Your task to perform on an android device: turn off picture-in-picture Image 0: 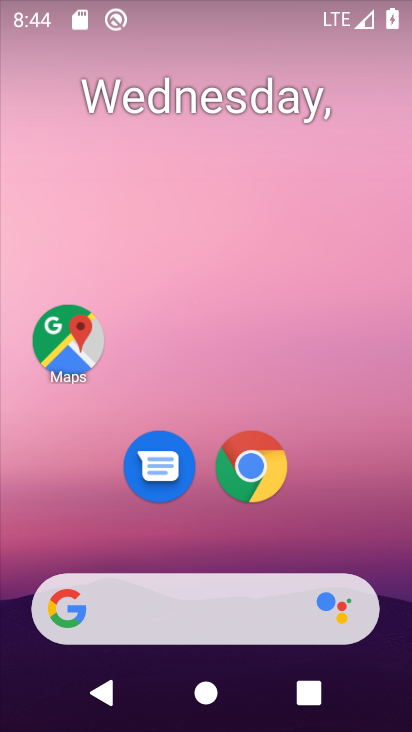
Step 0: drag from (235, 720) to (235, 276)
Your task to perform on an android device: turn off picture-in-picture Image 1: 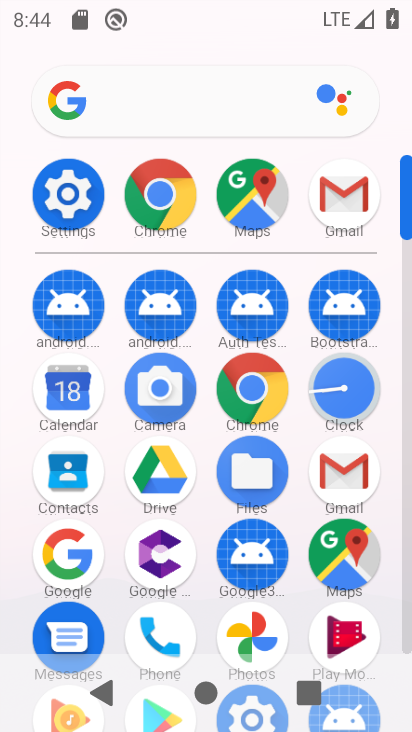
Step 1: click (63, 186)
Your task to perform on an android device: turn off picture-in-picture Image 2: 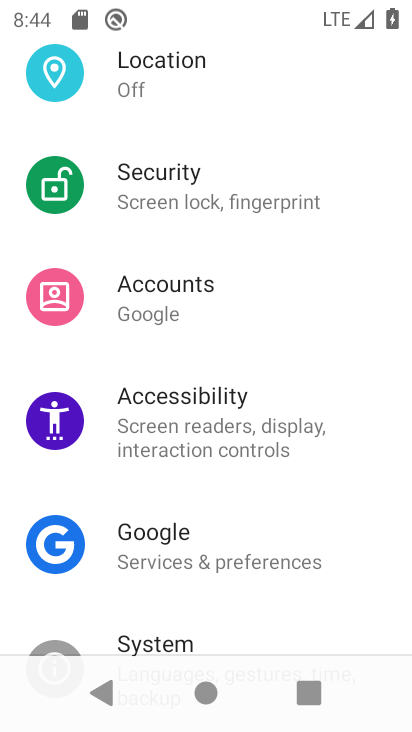
Step 2: drag from (223, 142) to (217, 409)
Your task to perform on an android device: turn off picture-in-picture Image 3: 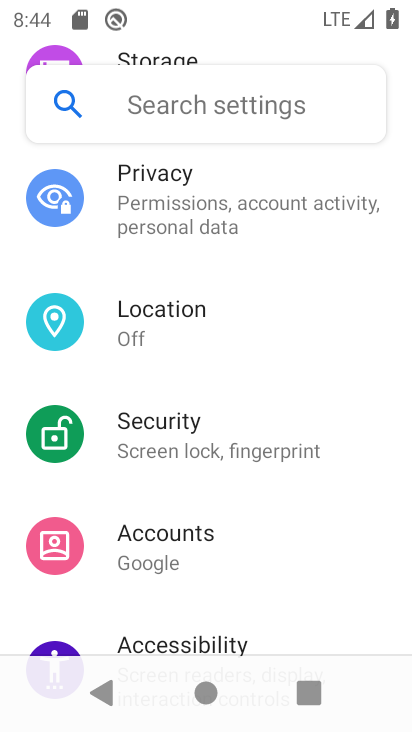
Step 3: drag from (196, 193) to (177, 422)
Your task to perform on an android device: turn off picture-in-picture Image 4: 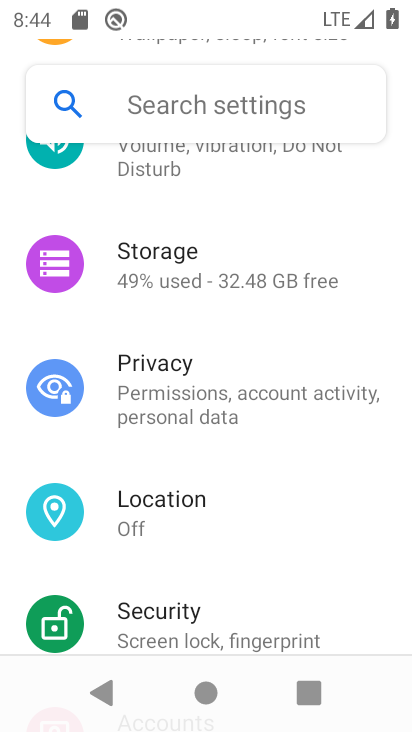
Step 4: drag from (220, 217) to (197, 493)
Your task to perform on an android device: turn off picture-in-picture Image 5: 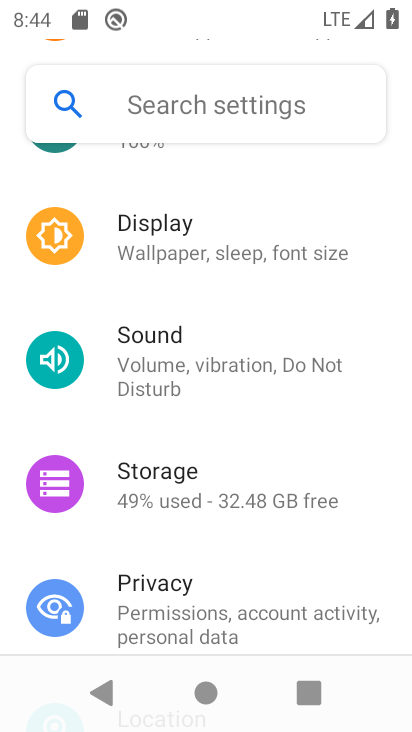
Step 5: drag from (201, 206) to (142, 547)
Your task to perform on an android device: turn off picture-in-picture Image 6: 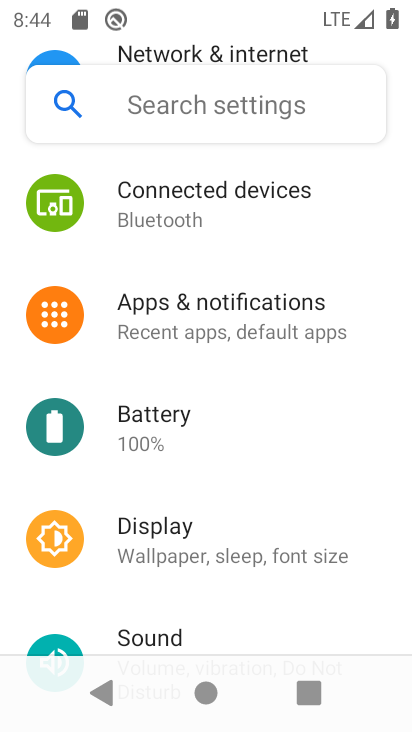
Step 6: drag from (255, 196) to (263, 399)
Your task to perform on an android device: turn off picture-in-picture Image 7: 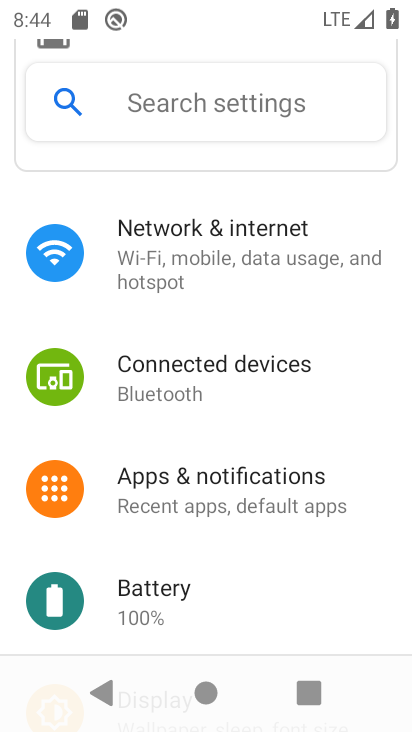
Step 7: click (263, 475)
Your task to perform on an android device: turn off picture-in-picture Image 8: 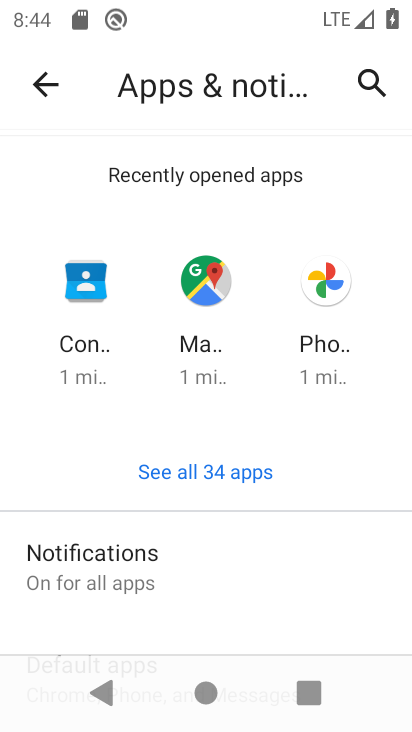
Step 8: drag from (256, 603) to (266, 226)
Your task to perform on an android device: turn off picture-in-picture Image 9: 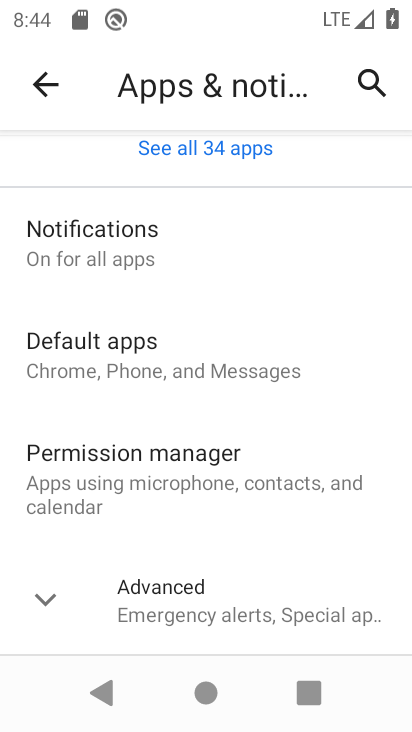
Step 9: drag from (210, 599) to (240, 248)
Your task to perform on an android device: turn off picture-in-picture Image 10: 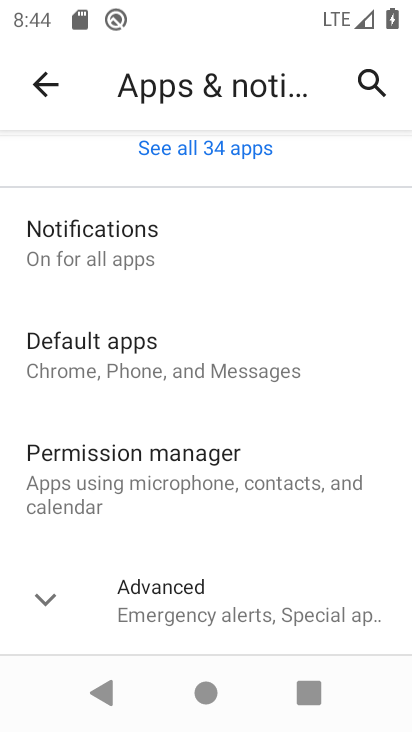
Step 10: click (162, 586)
Your task to perform on an android device: turn off picture-in-picture Image 11: 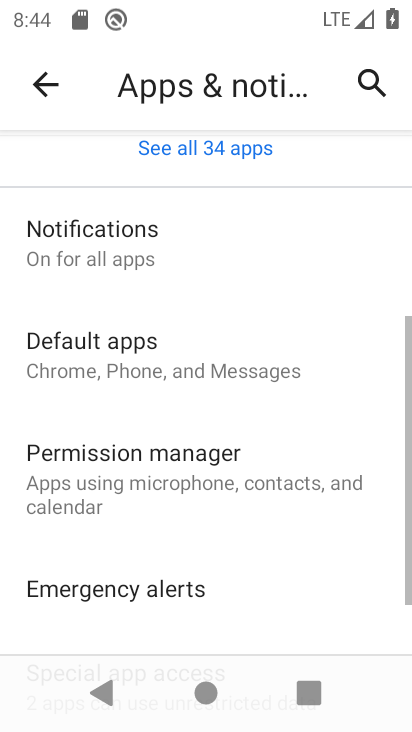
Step 11: drag from (213, 616) to (244, 318)
Your task to perform on an android device: turn off picture-in-picture Image 12: 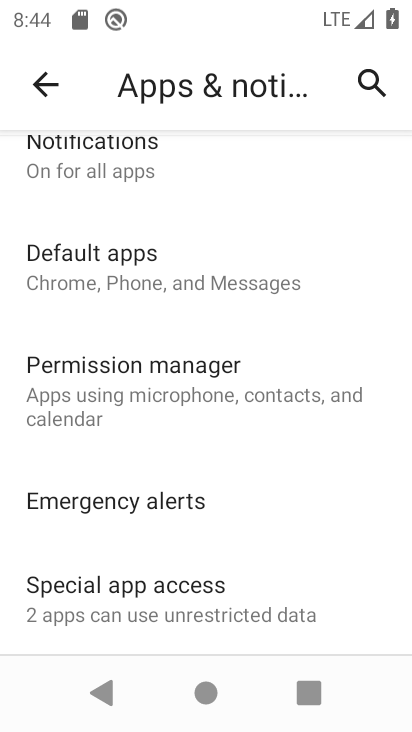
Step 12: click (119, 606)
Your task to perform on an android device: turn off picture-in-picture Image 13: 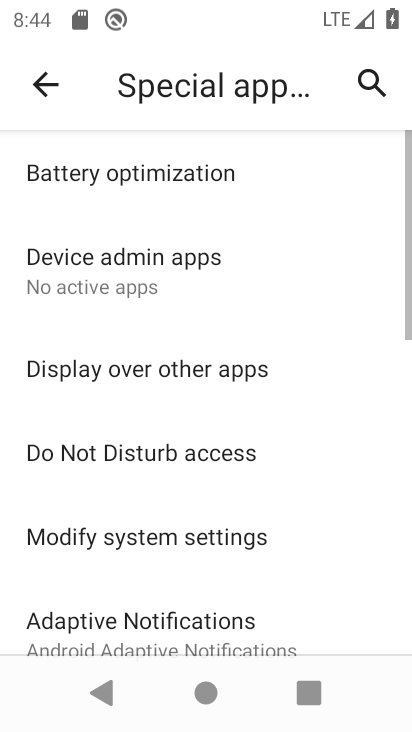
Step 13: drag from (238, 624) to (275, 309)
Your task to perform on an android device: turn off picture-in-picture Image 14: 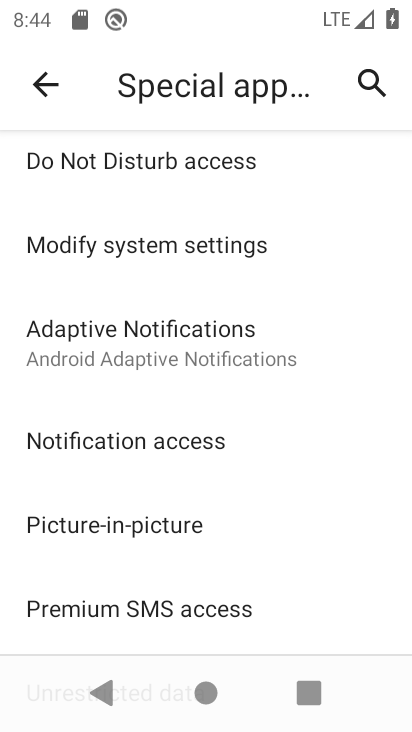
Step 14: click (138, 523)
Your task to perform on an android device: turn off picture-in-picture Image 15: 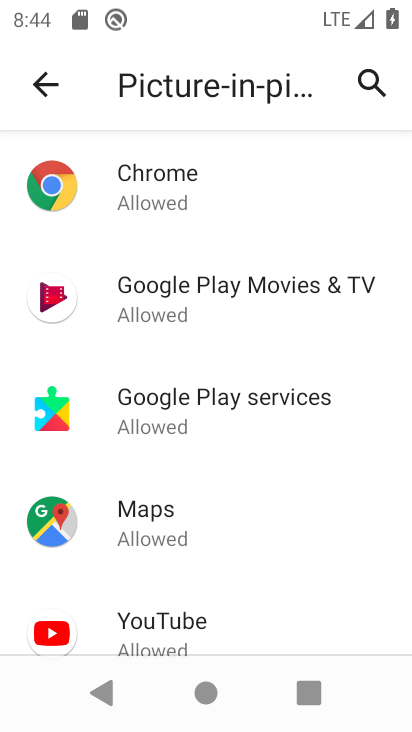
Step 15: click (179, 616)
Your task to perform on an android device: turn off picture-in-picture Image 16: 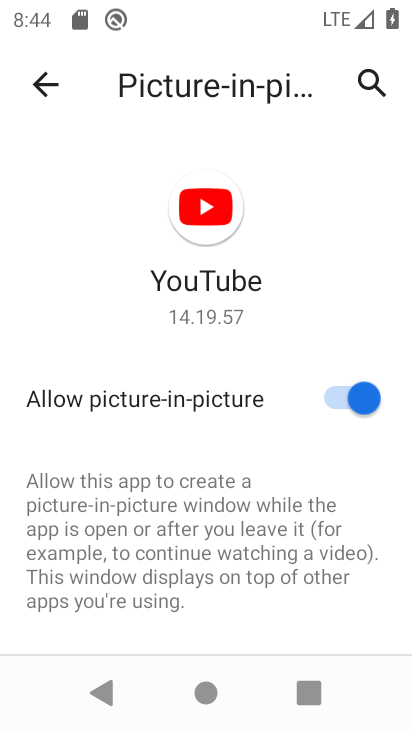
Step 16: click (342, 394)
Your task to perform on an android device: turn off picture-in-picture Image 17: 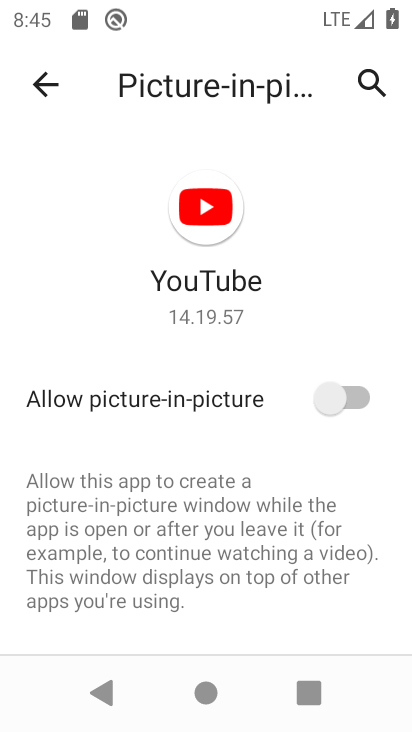
Step 17: task complete